Your task to perform on an android device: Go to Reddit.com Image 0: 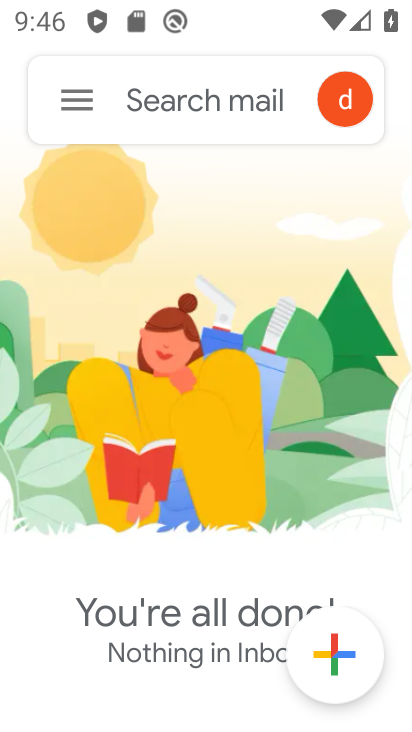
Step 0: press home button
Your task to perform on an android device: Go to Reddit.com Image 1: 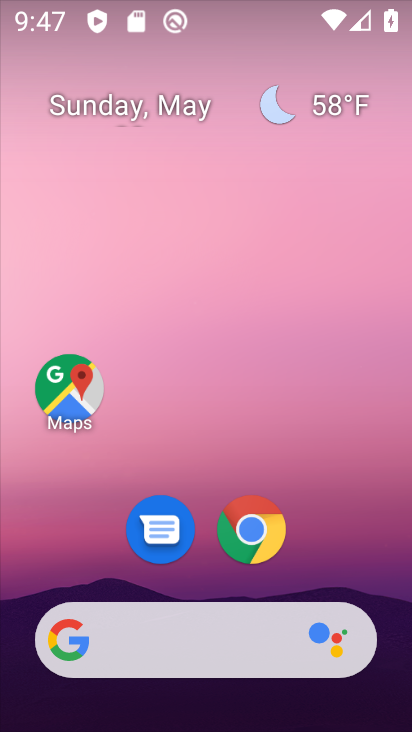
Step 1: click (254, 536)
Your task to perform on an android device: Go to Reddit.com Image 2: 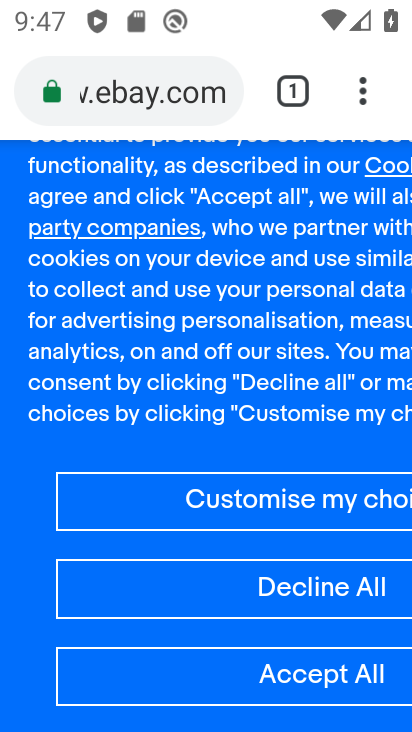
Step 2: click (176, 77)
Your task to perform on an android device: Go to Reddit.com Image 3: 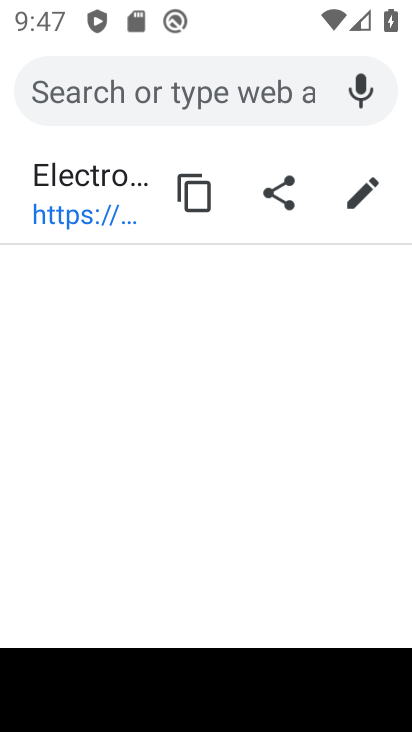
Step 3: type "Reddit.com"
Your task to perform on an android device: Go to Reddit.com Image 4: 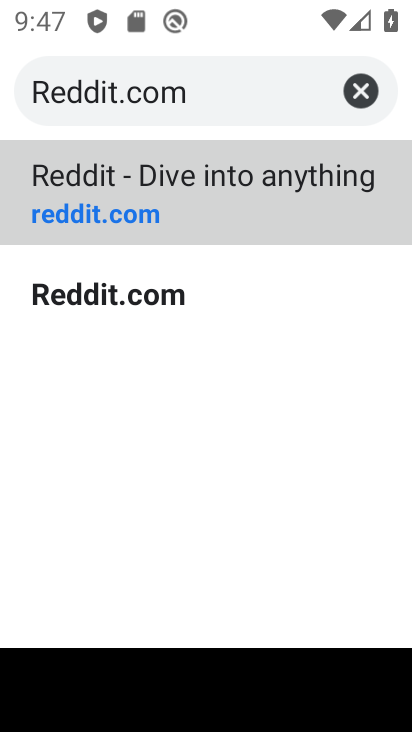
Step 4: click (163, 219)
Your task to perform on an android device: Go to Reddit.com Image 5: 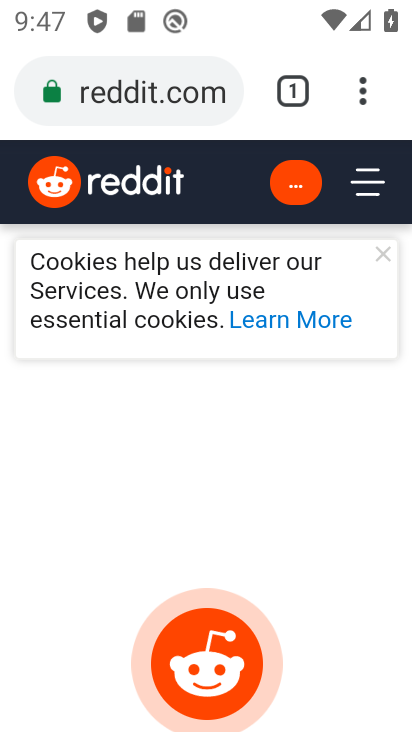
Step 5: task complete